Your task to perform on an android device: Open Youtube and go to "Your channel" Image 0: 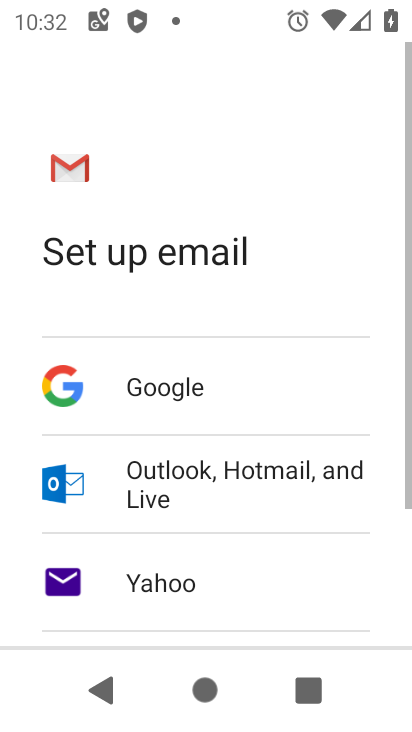
Step 0: press home button
Your task to perform on an android device: Open Youtube and go to "Your channel" Image 1: 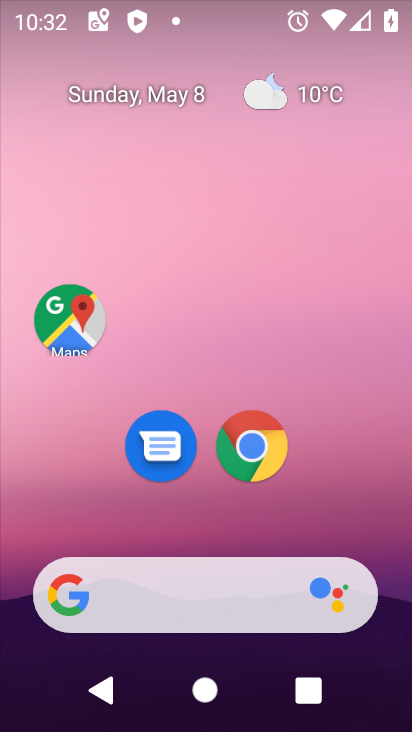
Step 1: drag from (313, 532) to (346, 51)
Your task to perform on an android device: Open Youtube and go to "Your channel" Image 2: 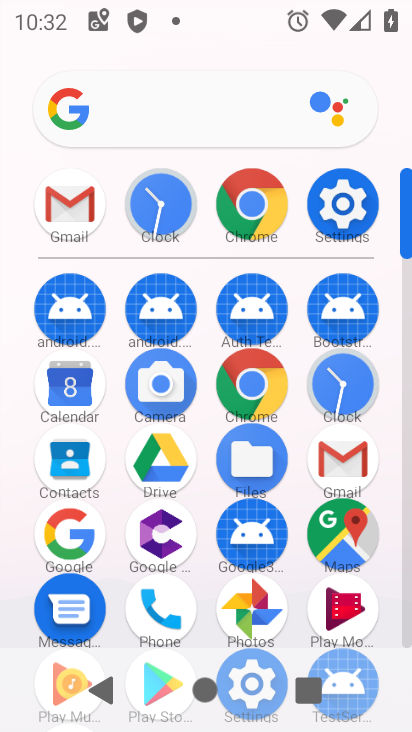
Step 2: drag from (410, 608) to (396, 570)
Your task to perform on an android device: Open Youtube and go to "Your channel" Image 3: 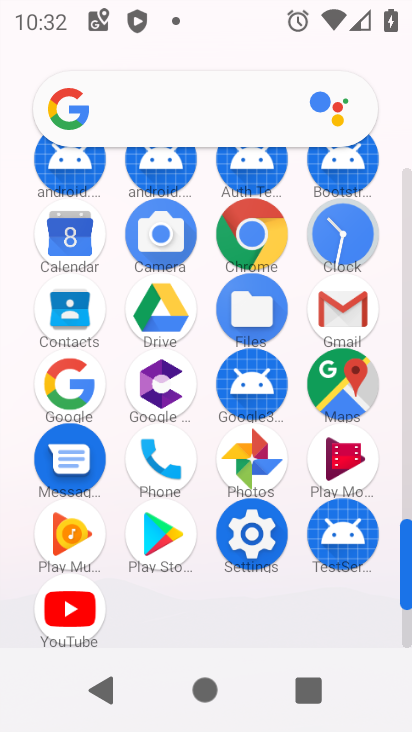
Step 3: click (63, 614)
Your task to perform on an android device: Open Youtube and go to "Your channel" Image 4: 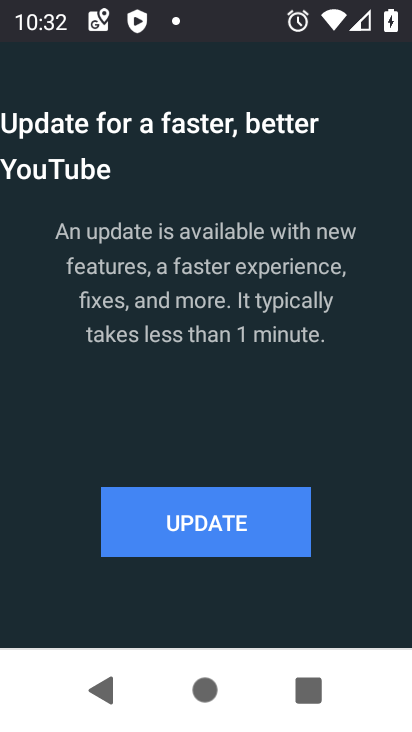
Step 4: click (207, 533)
Your task to perform on an android device: Open Youtube and go to "Your channel" Image 5: 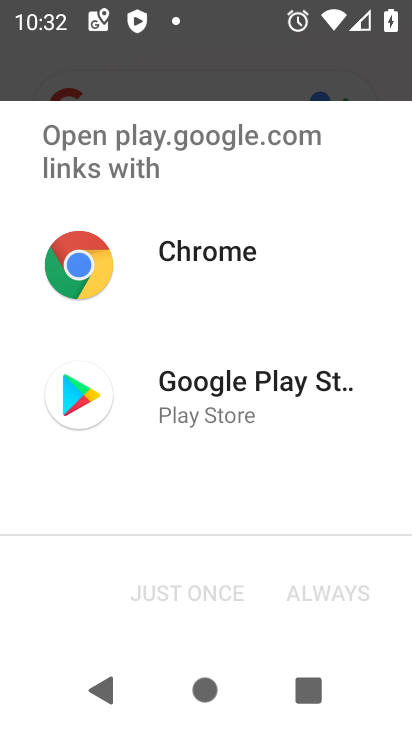
Step 5: click (178, 421)
Your task to perform on an android device: Open Youtube and go to "Your channel" Image 6: 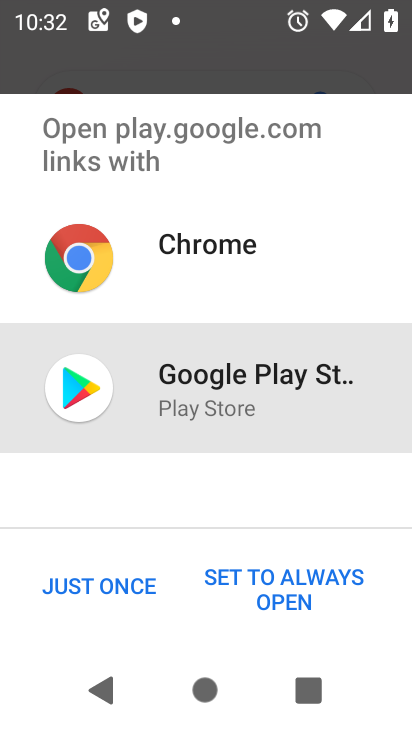
Step 6: click (137, 593)
Your task to perform on an android device: Open Youtube and go to "Your channel" Image 7: 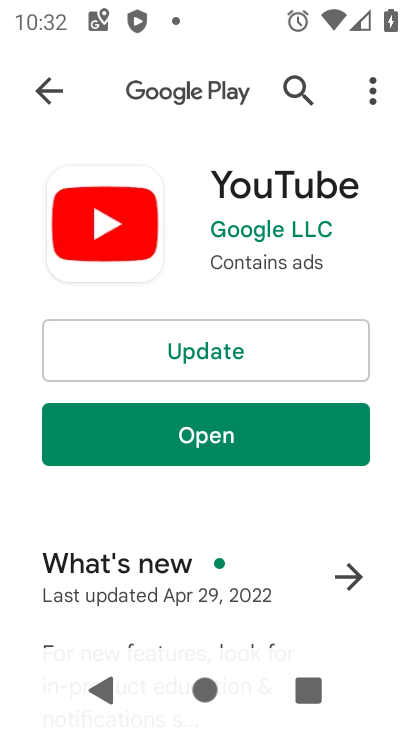
Step 7: click (207, 345)
Your task to perform on an android device: Open Youtube and go to "Your channel" Image 8: 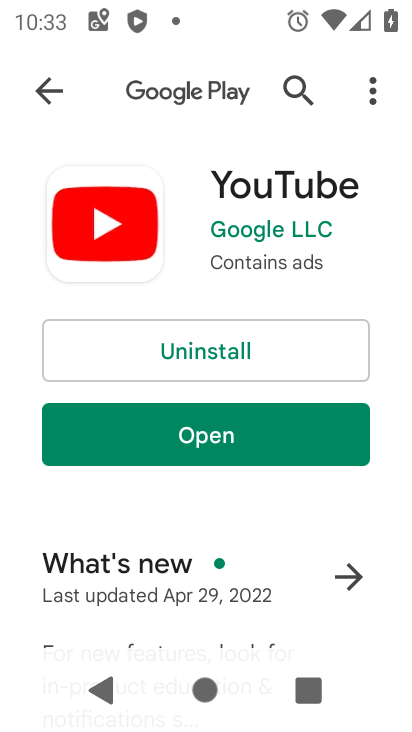
Step 8: click (141, 458)
Your task to perform on an android device: Open Youtube and go to "Your channel" Image 9: 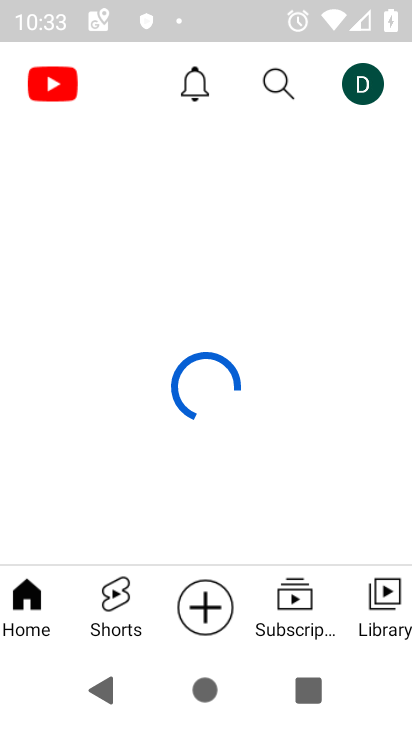
Step 9: click (373, 84)
Your task to perform on an android device: Open Youtube and go to "Your channel" Image 10: 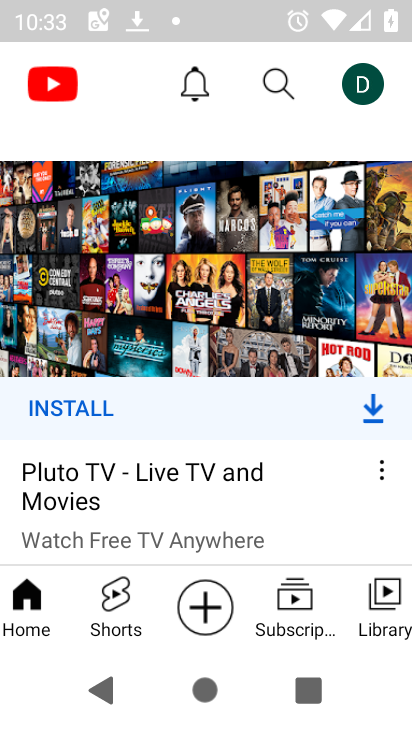
Step 10: click (360, 79)
Your task to perform on an android device: Open Youtube and go to "Your channel" Image 11: 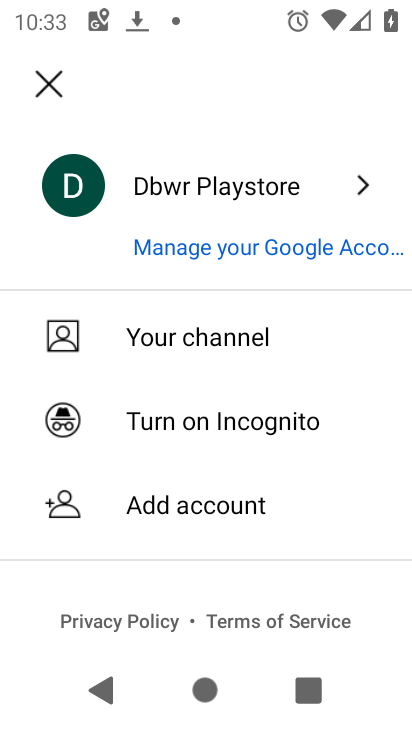
Step 11: click (164, 340)
Your task to perform on an android device: Open Youtube and go to "Your channel" Image 12: 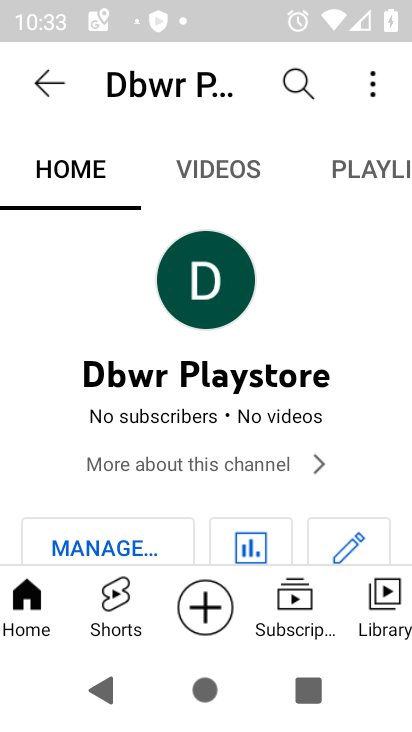
Step 12: task complete